Your task to perform on an android device: delete location history Image 0: 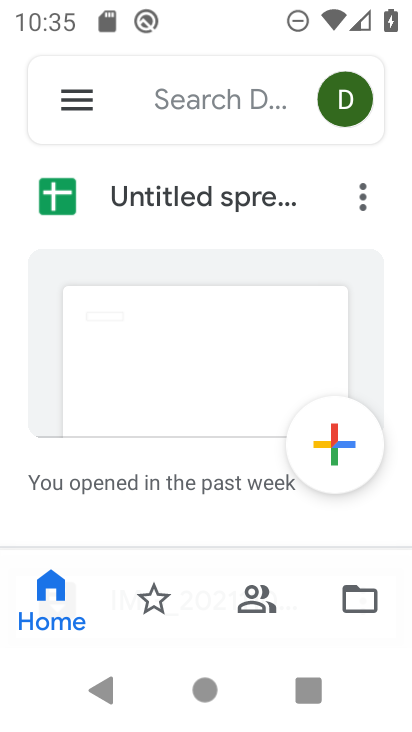
Step 0: press home button
Your task to perform on an android device: delete location history Image 1: 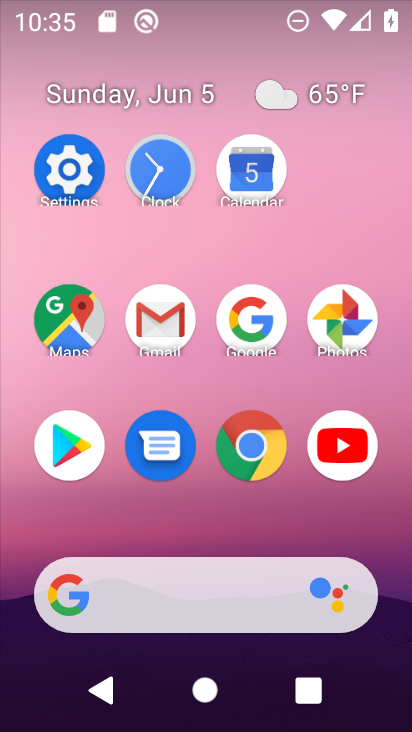
Step 1: click (58, 164)
Your task to perform on an android device: delete location history Image 2: 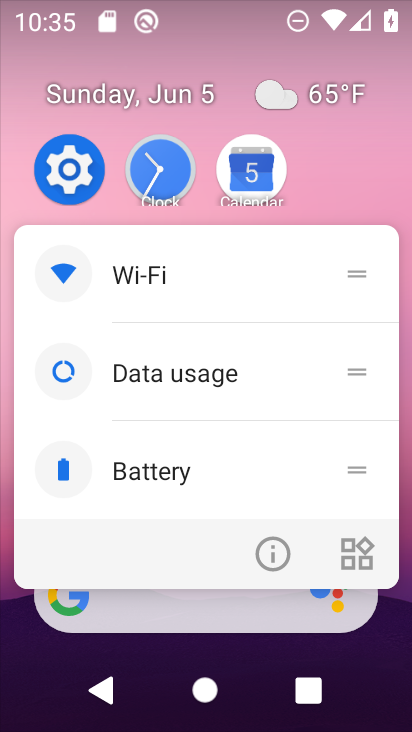
Step 2: click (63, 171)
Your task to perform on an android device: delete location history Image 3: 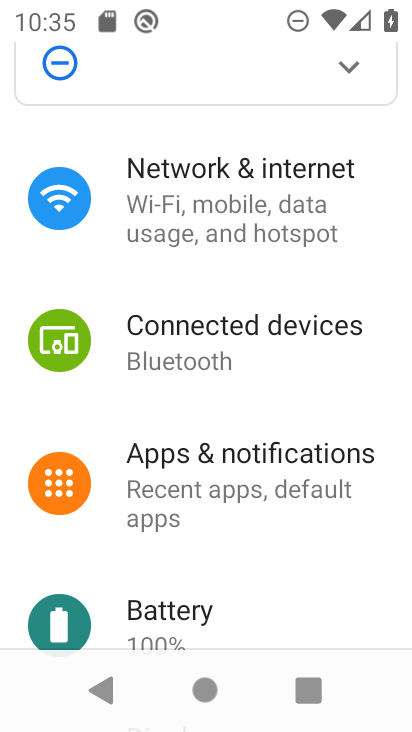
Step 3: drag from (252, 498) to (245, 174)
Your task to perform on an android device: delete location history Image 4: 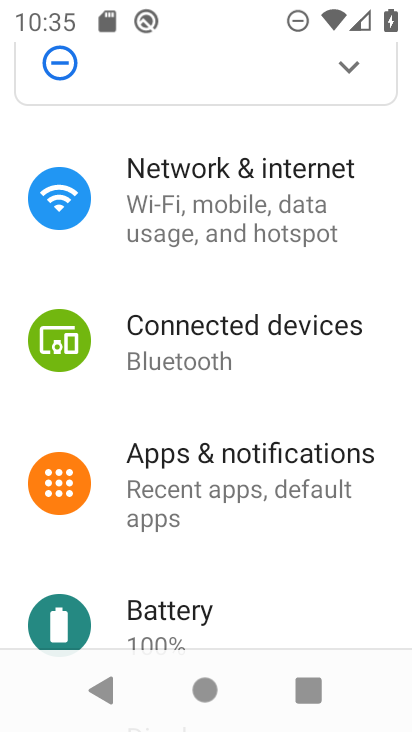
Step 4: drag from (232, 520) to (300, 196)
Your task to perform on an android device: delete location history Image 5: 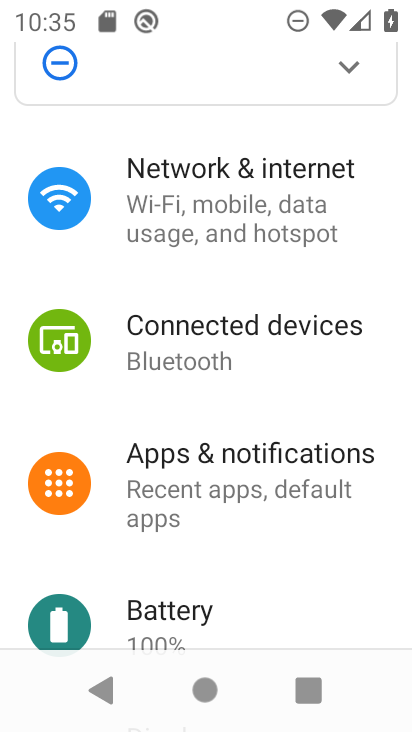
Step 5: drag from (231, 583) to (250, 223)
Your task to perform on an android device: delete location history Image 6: 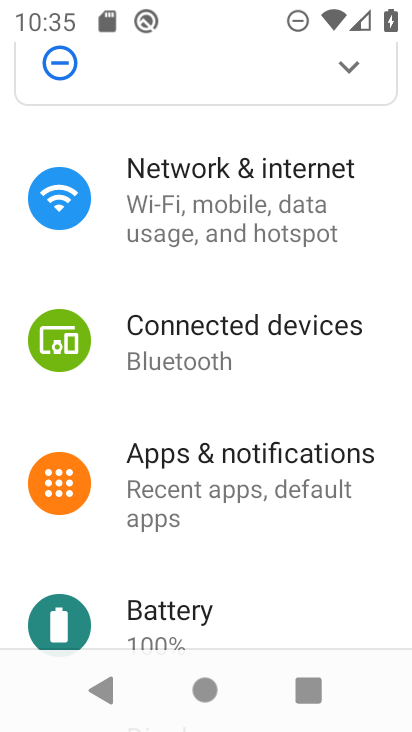
Step 6: drag from (267, 580) to (297, 224)
Your task to perform on an android device: delete location history Image 7: 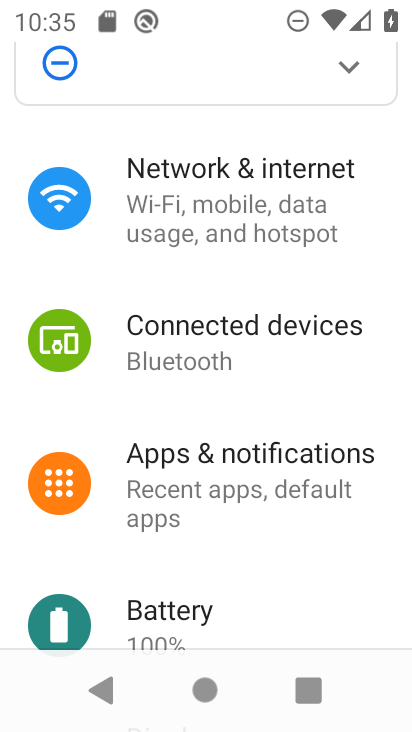
Step 7: drag from (281, 567) to (293, 390)
Your task to perform on an android device: delete location history Image 8: 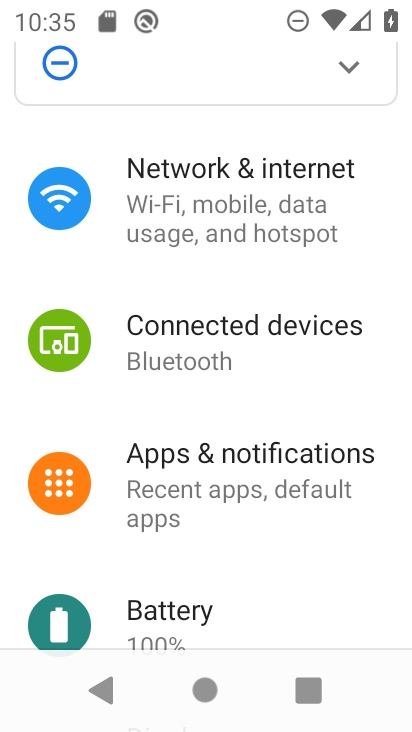
Step 8: drag from (323, 564) to (302, 213)
Your task to perform on an android device: delete location history Image 9: 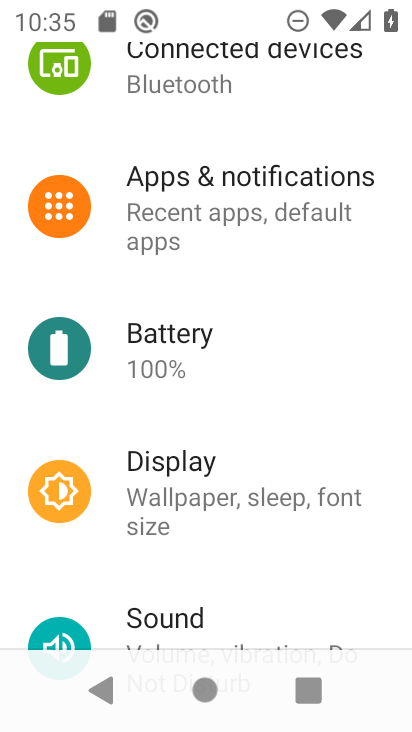
Step 9: drag from (227, 575) to (262, 227)
Your task to perform on an android device: delete location history Image 10: 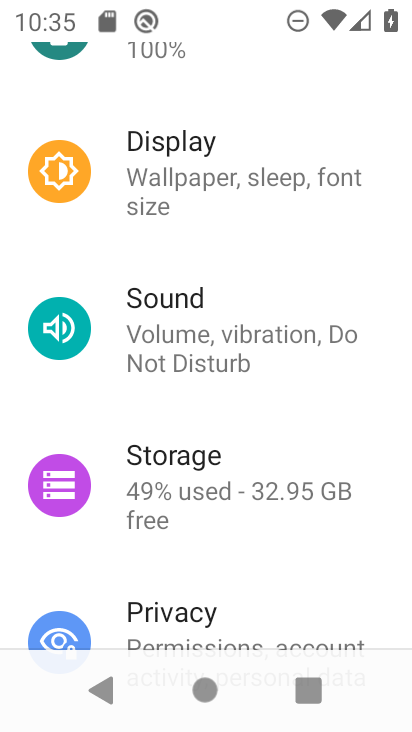
Step 10: drag from (300, 554) to (339, 181)
Your task to perform on an android device: delete location history Image 11: 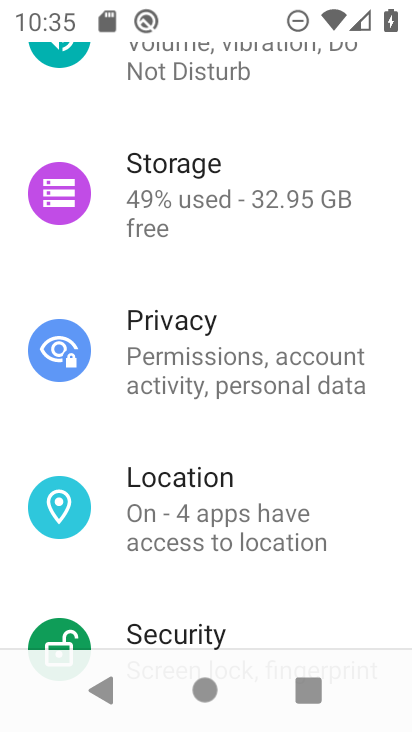
Step 11: click (296, 502)
Your task to perform on an android device: delete location history Image 12: 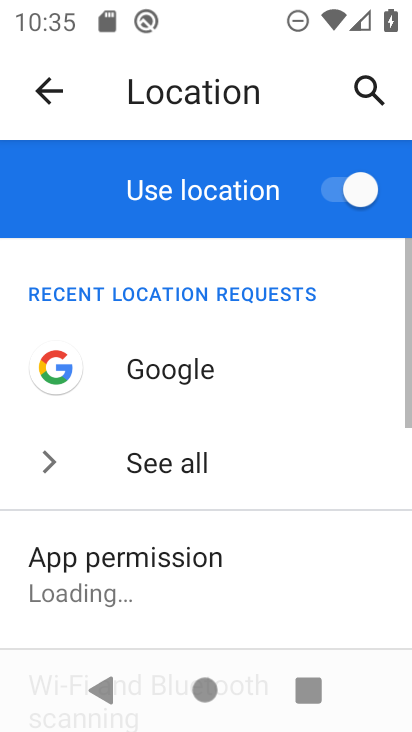
Step 12: drag from (308, 245) to (296, 189)
Your task to perform on an android device: delete location history Image 13: 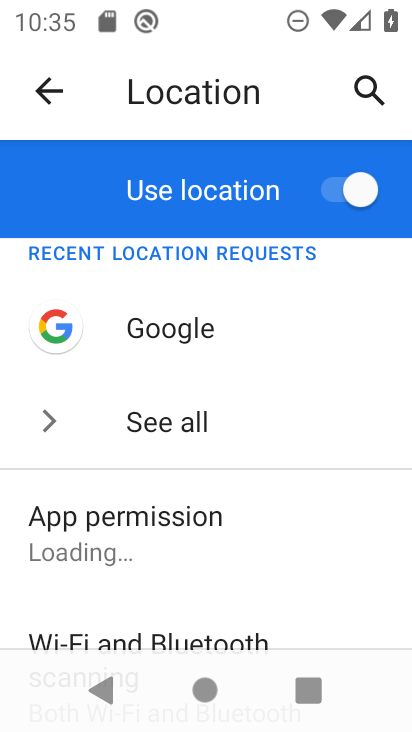
Step 13: drag from (260, 483) to (225, 209)
Your task to perform on an android device: delete location history Image 14: 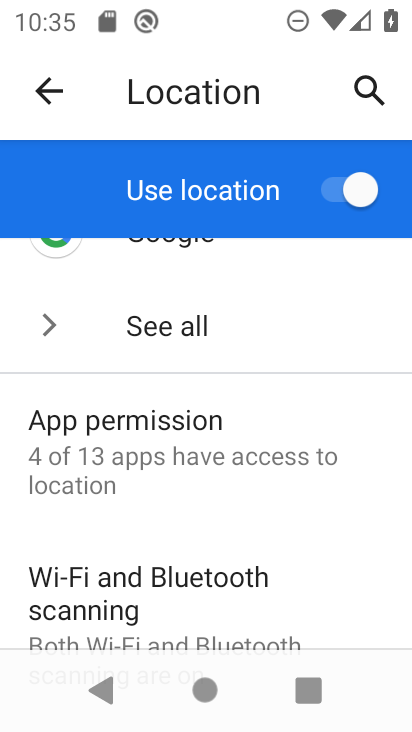
Step 14: drag from (172, 519) to (193, 203)
Your task to perform on an android device: delete location history Image 15: 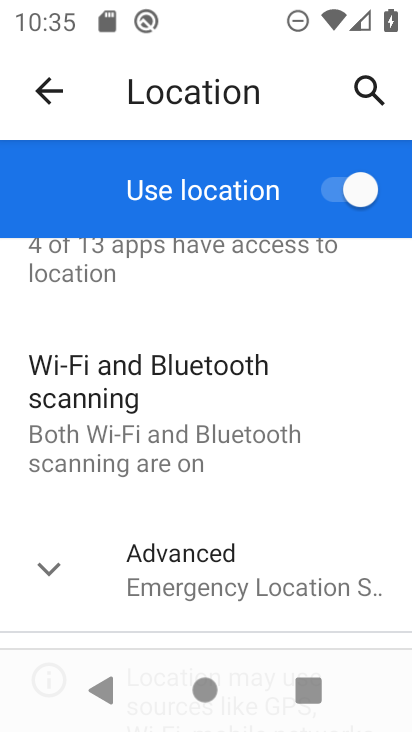
Step 15: click (227, 587)
Your task to perform on an android device: delete location history Image 16: 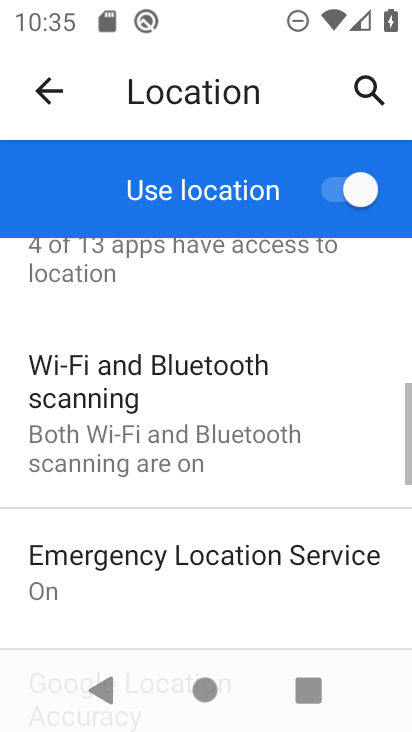
Step 16: drag from (226, 557) to (177, 243)
Your task to perform on an android device: delete location history Image 17: 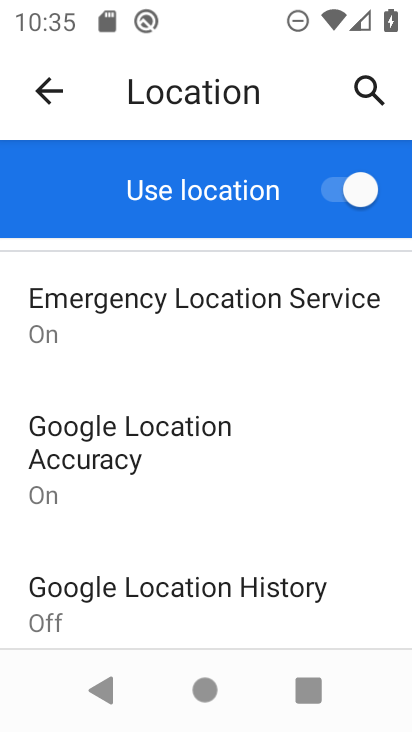
Step 17: click (197, 581)
Your task to perform on an android device: delete location history Image 18: 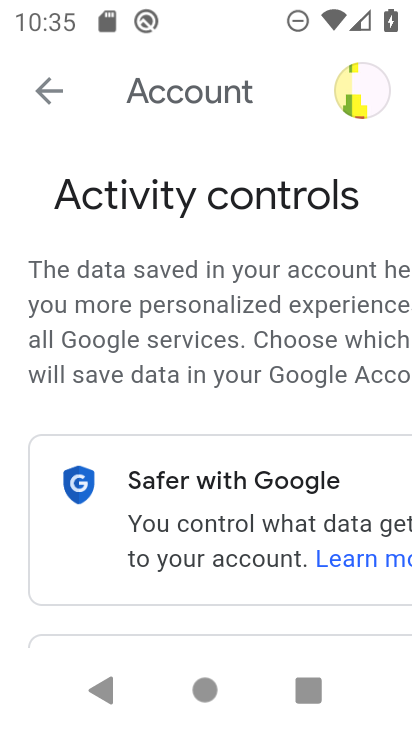
Step 18: drag from (195, 576) to (181, 236)
Your task to perform on an android device: delete location history Image 19: 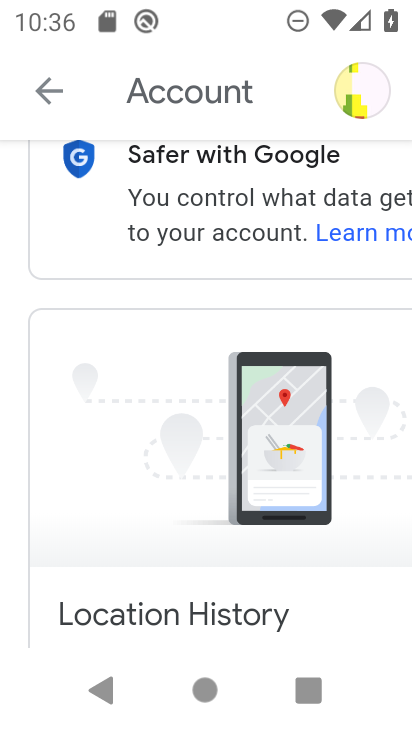
Step 19: drag from (233, 548) to (242, 172)
Your task to perform on an android device: delete location history Image 20: 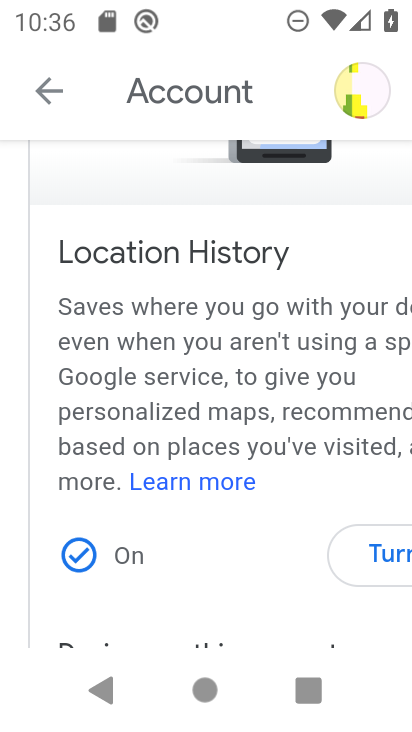
Step 20: drag from (254, 496) to (198, 193)
Your task to perform on an android device: delete location history Image 21: 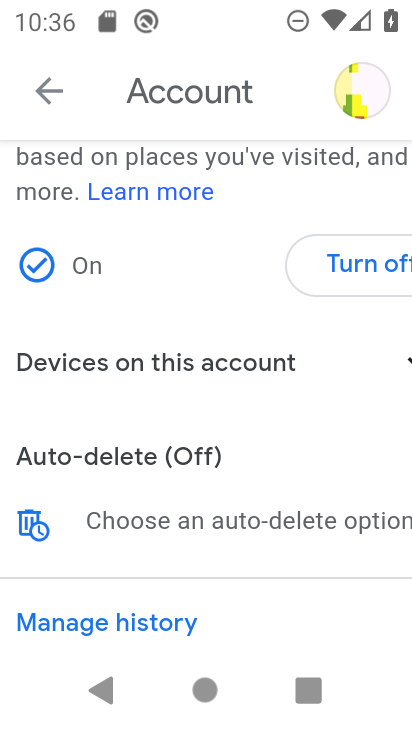
Step 21: click (141, 539)
Your task to perform on an android device: delete location history Image 22: 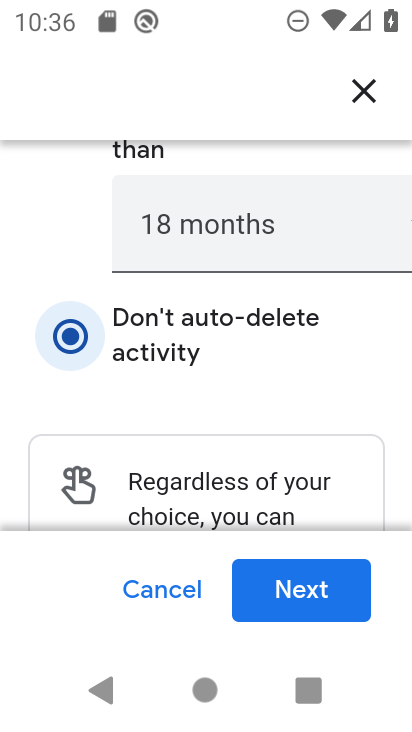
Step 22: click (322, 609)
Your task to perform on an android device: delete location history Image 23: 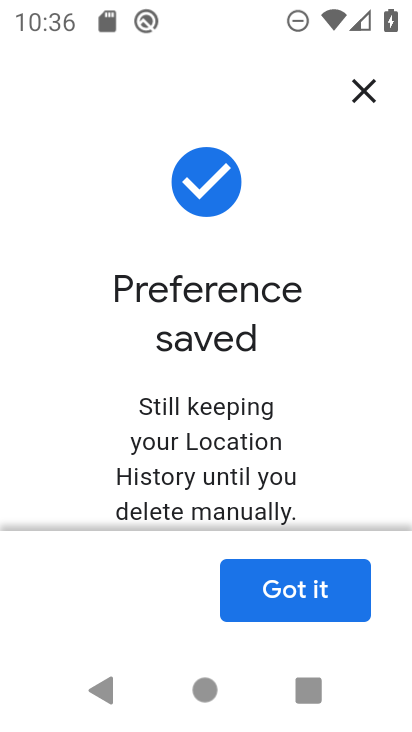
Step 23: click (234, 585)
Your task to perform on an android device: delete location history Image 24: 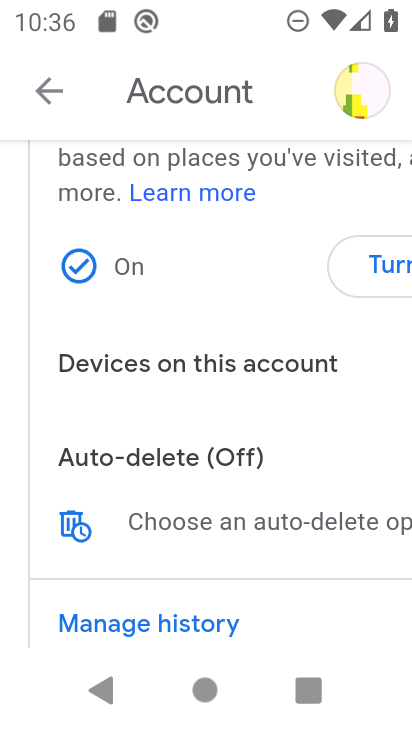
Step 24: task complete